Your task to perform on an android device: Open settings on Google Maps Image 0: 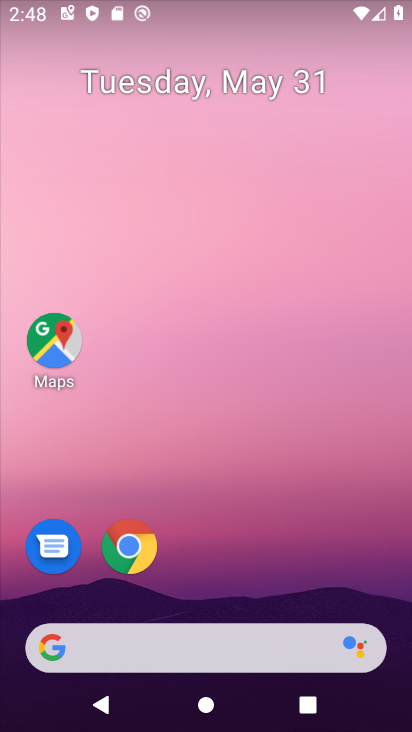
Step 0: click (49, 341)
Your task to perform on an android device: Open settings on Google Maps Image 1: 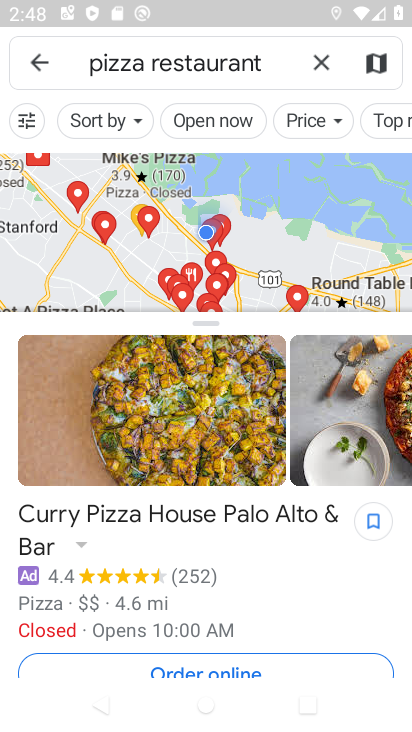
Step 1: click (319, 54)
Your task to perform on an android device: Open settings on Google Maps Image 2: 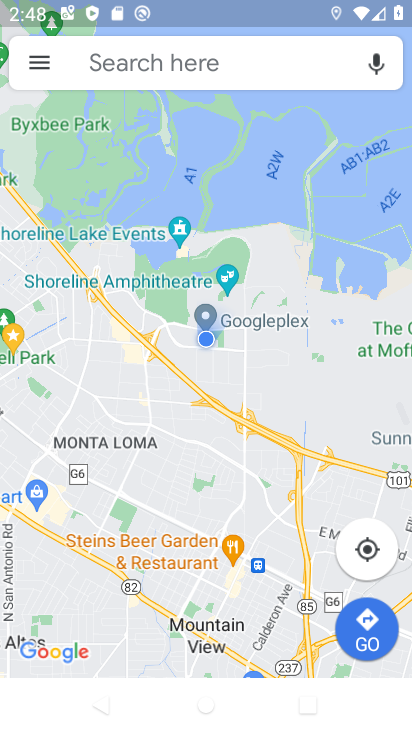
Step 2: click (39, 57)
Your task to perform on an android device: Open settings on Google Maps Image 3: 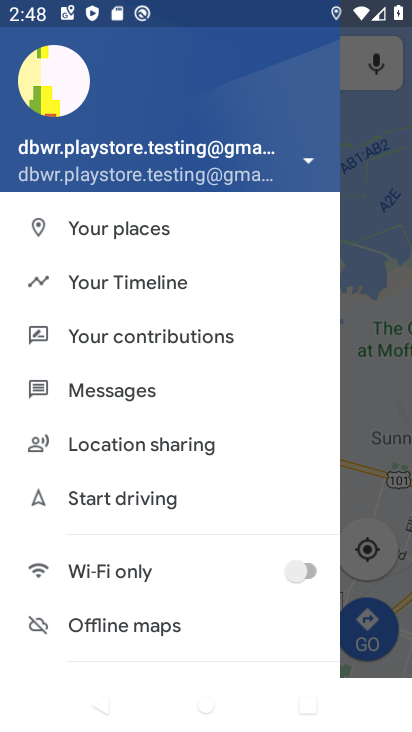
Step 3: drag from (181, 592) to (199, 46)
Your task to perform on an android device: Open settings on Google Maps Image 4: 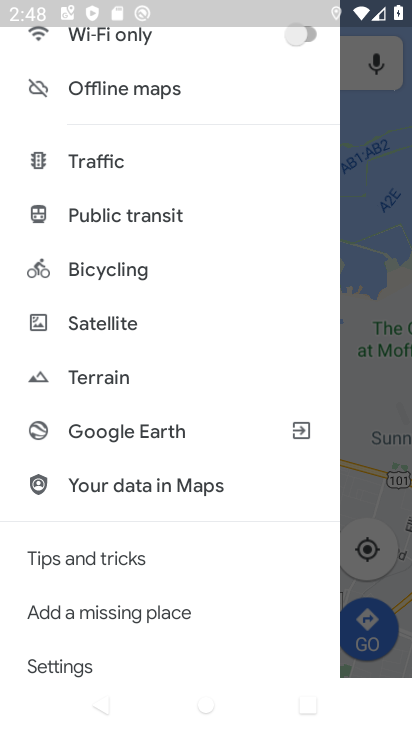
Step 4: click (96, 663)
Your task to perform on an android device: Open settings on Google Maps Image 5: 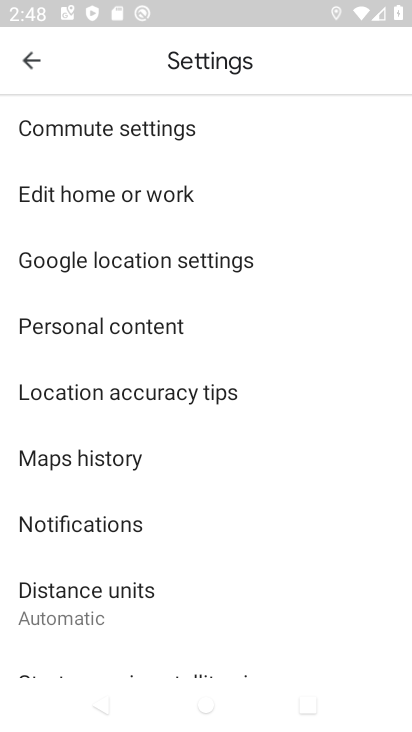
Step 5: task complete